Your task to perform on an android device: Search for pizza restaurants on Maps Image 0: 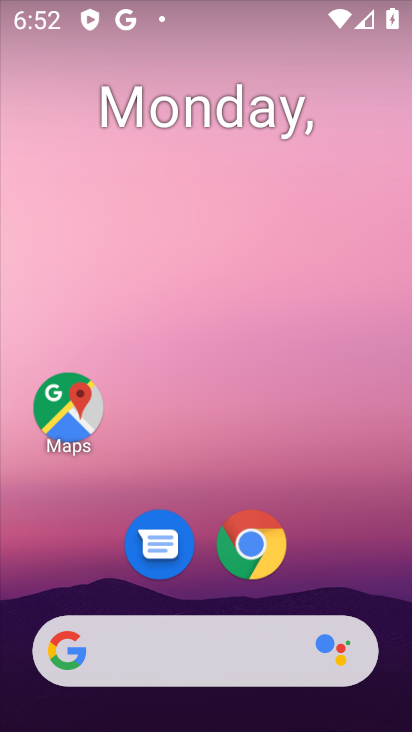
Step 0: click (59, 415)
Your task to perform on an android device: Search for pizza restaurants on Maps Image 1: 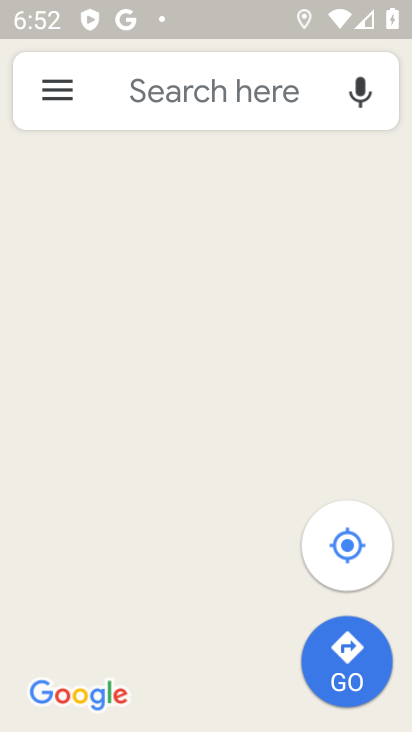
Step 1: click (148, 81)
Your task to perform on an android device: Search for pizza restaurants on Maps Image 2: 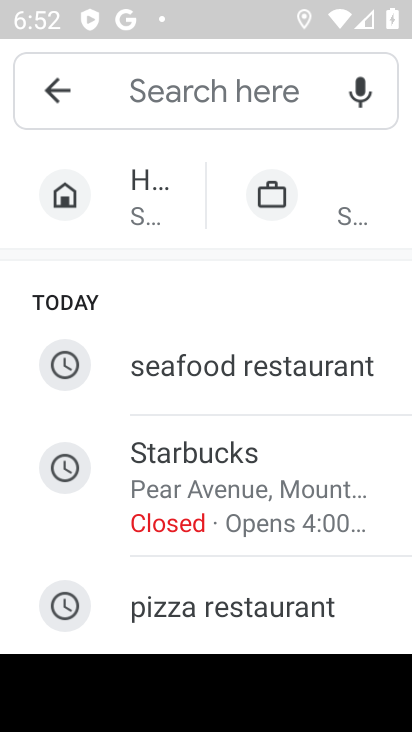
Step 2: click (215, 617)
Your task to perform on an android device: Search for pizza restaurants on Maps Image 3: 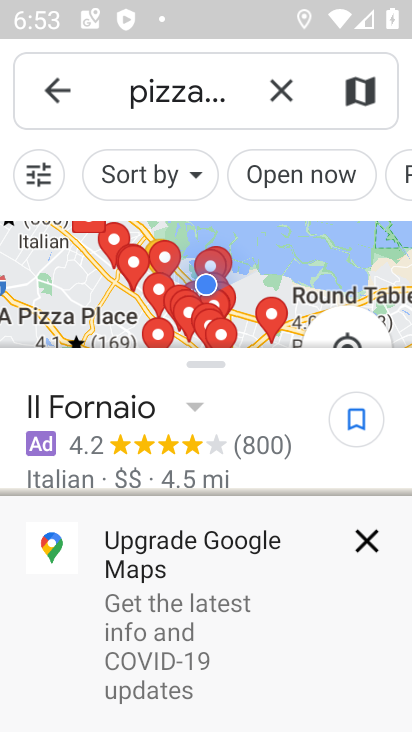
Step 3: task complete